Your task to perform on an android device: Clear all items from cart on walmart. Image 0: 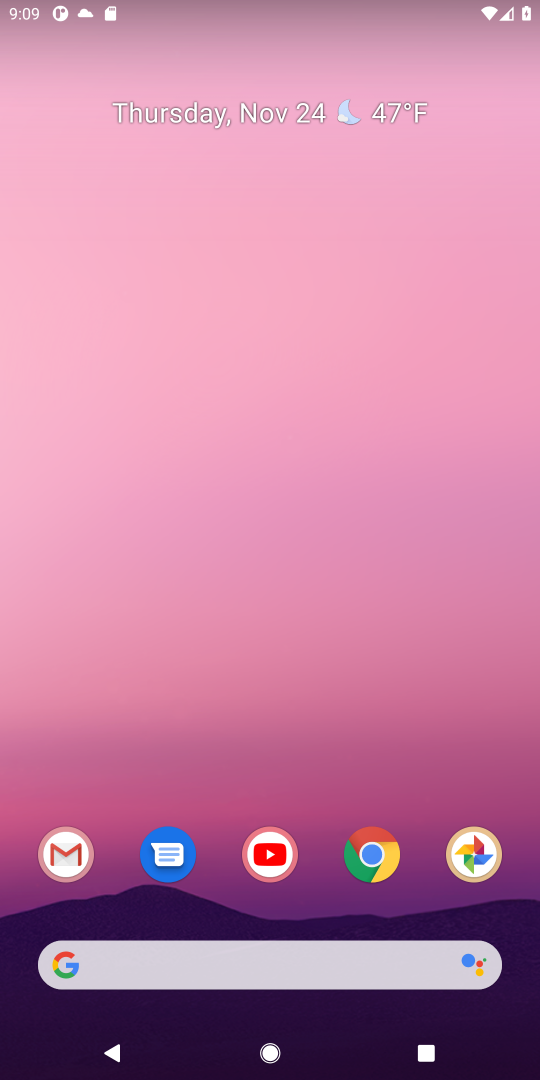
Step 0: click (373, 851)
Your task to perform on an android device: Clear all items from cart on walmart. Image 1: 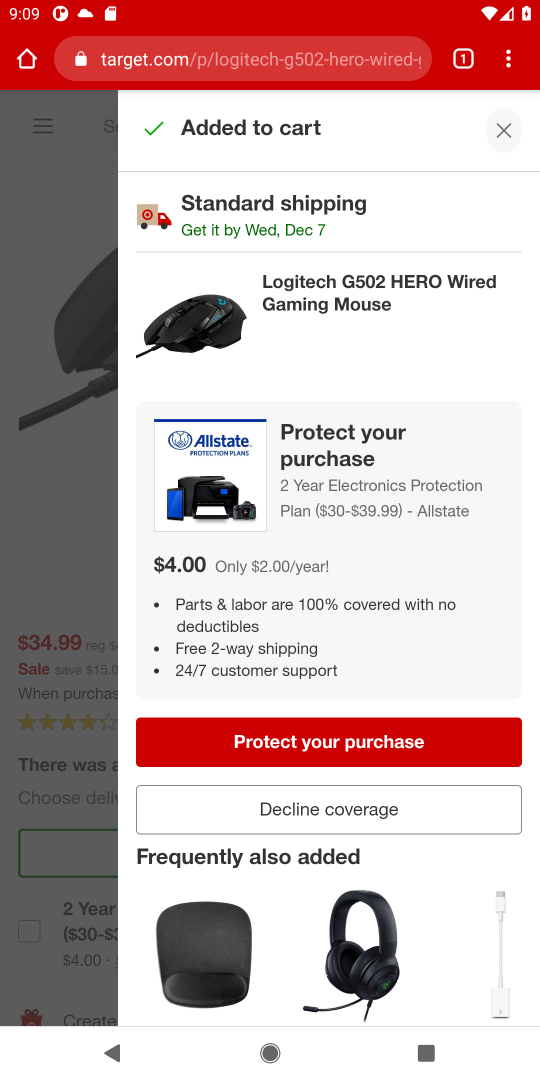
Step 1: click (252, 59)
Your task to perform on an android device: Clear all items from cart on walmart. Image 2: 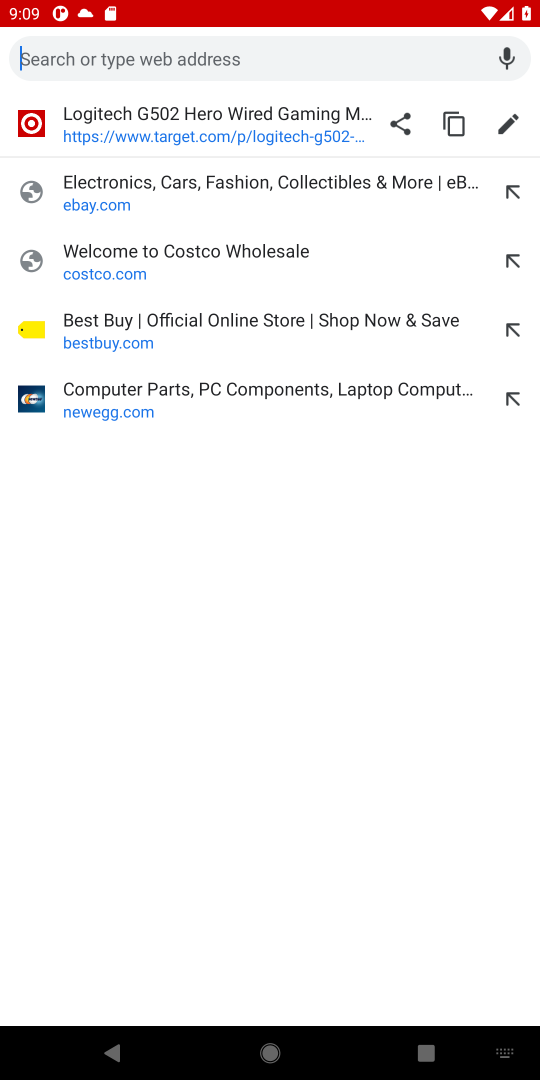
Step 2: type "walmart.com"
Your task to perform on an android device: Clear all items from cart on walmart. Image 3: 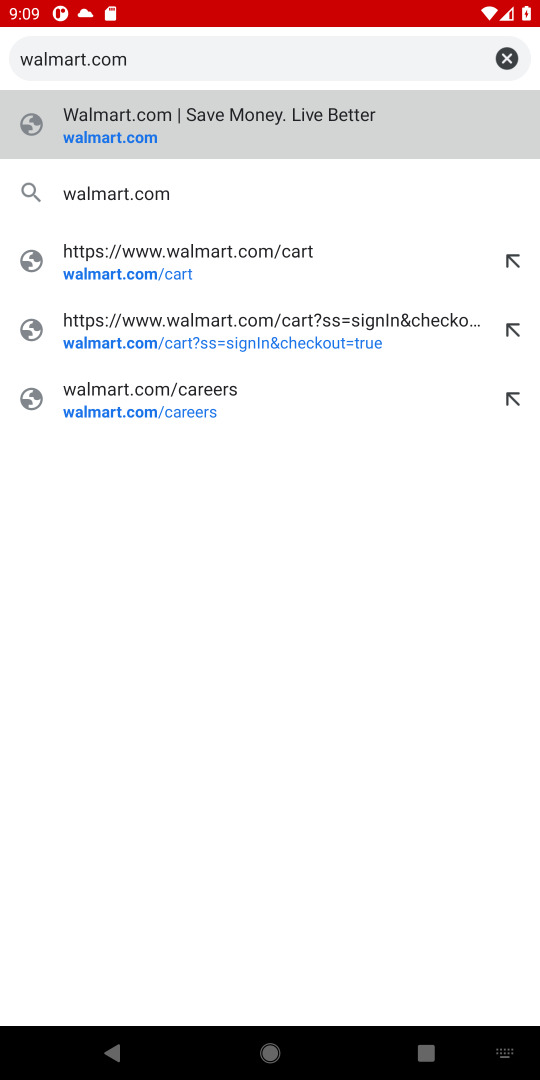
Step 3: click (113, 140)
Your task to perform on an android device: Clear all items from cart on walmart. Image 4: 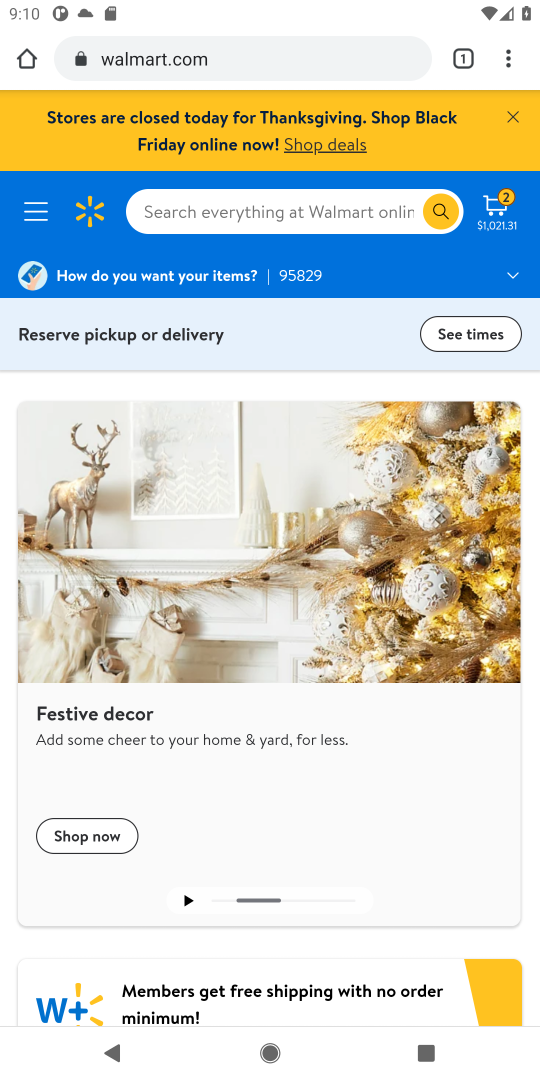
Step 4: click (494, 224)
Your task to perform on an android device: Clear all items from cart on walmart. Image 5: 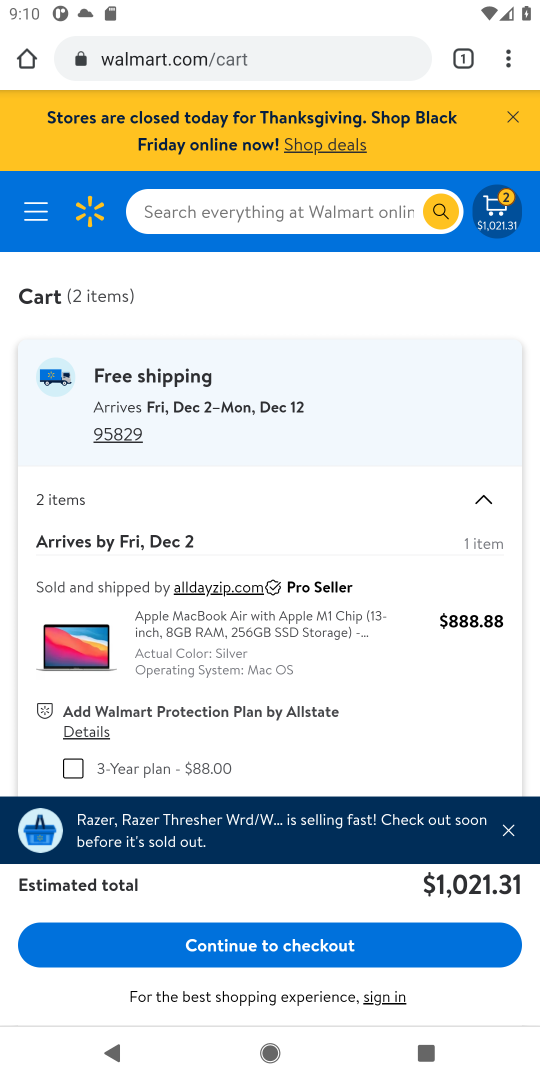
Step 5: drag from (306, 621) to (320, 381)
Your task to perform on an android device: Clear all items from cart on walmart. Image 6: 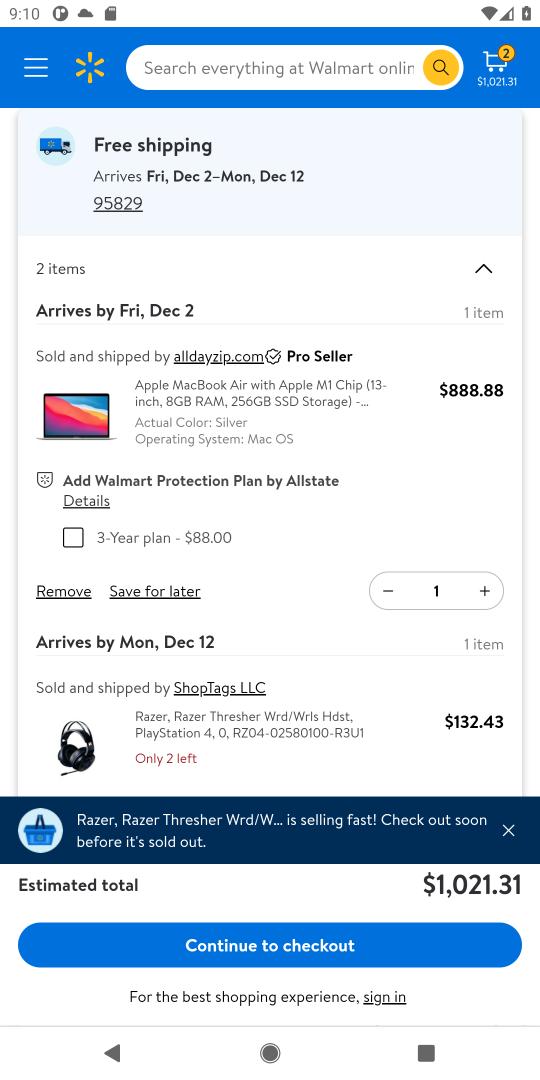
Step 6: click (56, 590)
Your task to perform on an android device: Clear all items from cart on walmart. Image 7: 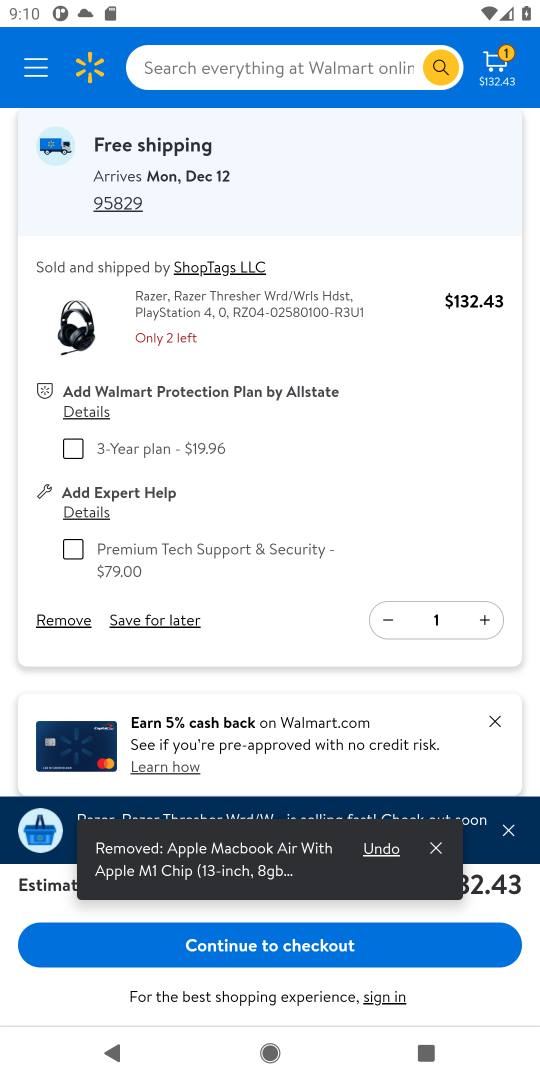
Step 7: click (56, 618)
Your task to perform on an android device: Clear all items from cart on walmart. Image 8: 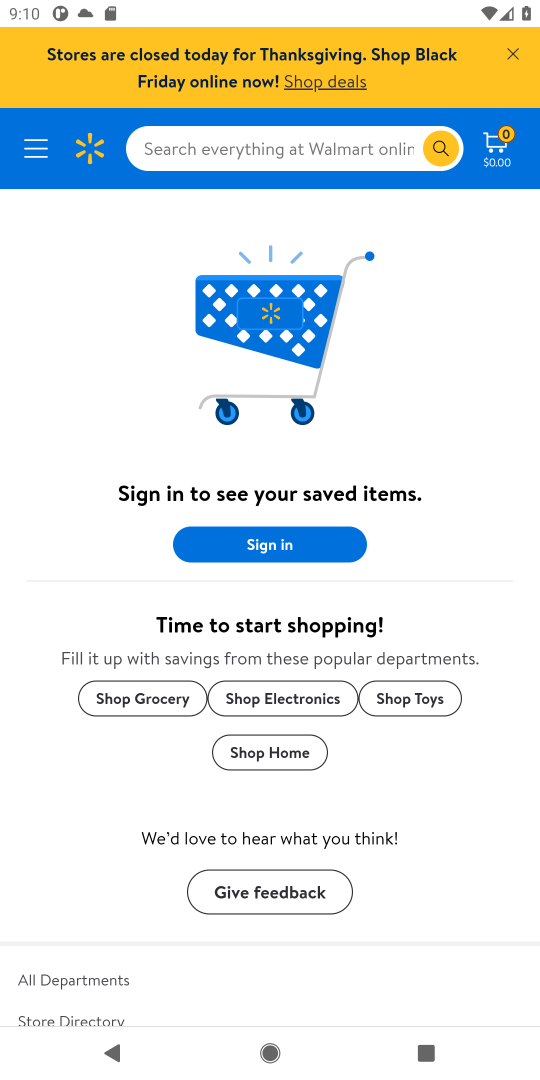
Step 8: task complete